Your task to perform on an android device: Go to display settings Image 0: 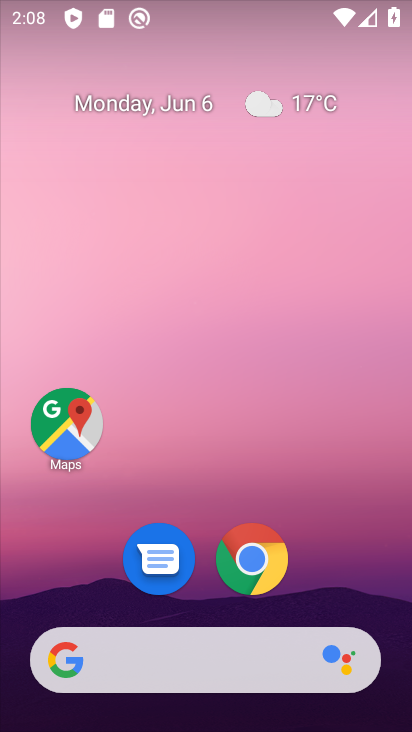
Step 0: drag from (302, 543) to (294, 144)
Your task to perform on an android device: Go to display settings Image 1: 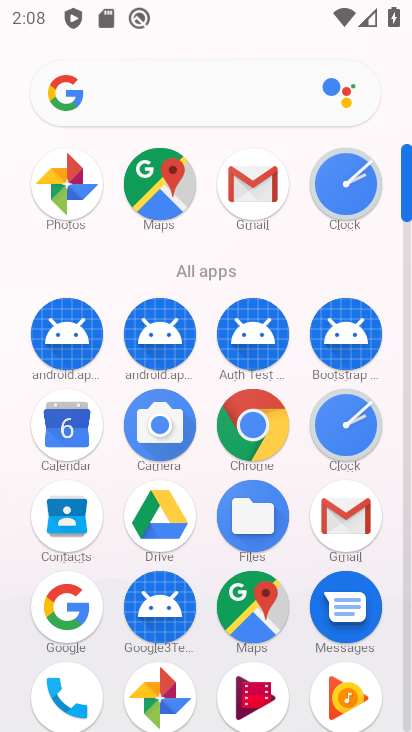
Step 1: drag from (184, 489) to (184, 284)
Your task to perform on an android device: Go to display settings Image 2: 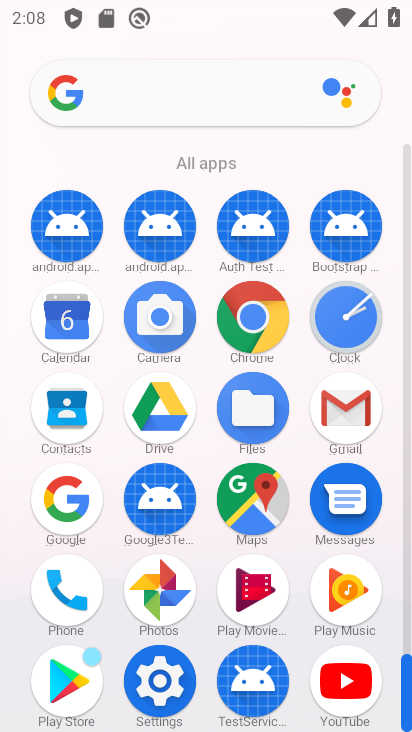
Step 2: click (167, 672)
Your task to perform on an android device: Go to display settings Image 3: 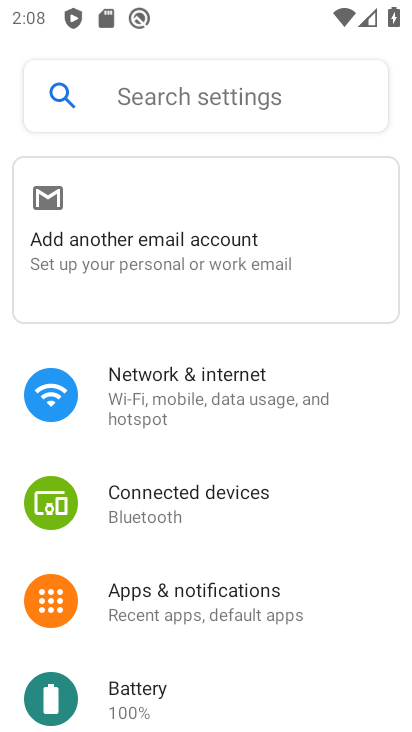
Step 3: drag from (338, 618) to (328, 254)
Your task to perform on an android device: Go to display settings Image 4: 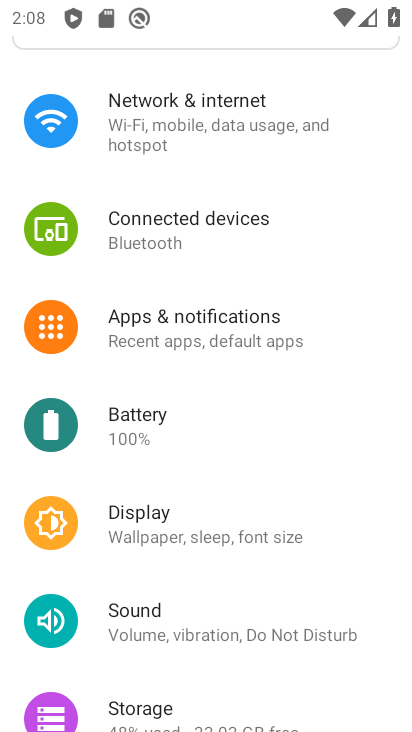
Step 4: click (175, 544)
Your task to perform on an android device: Go to display settings Image 5: 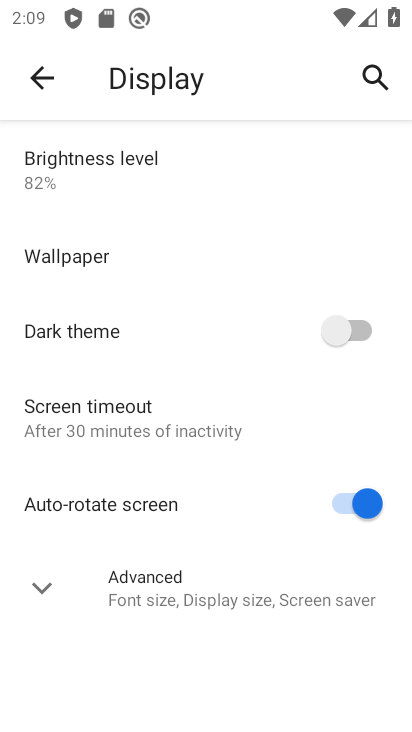
Step 5: task complete